Your task to perform on an android device: Open maps Image 0: 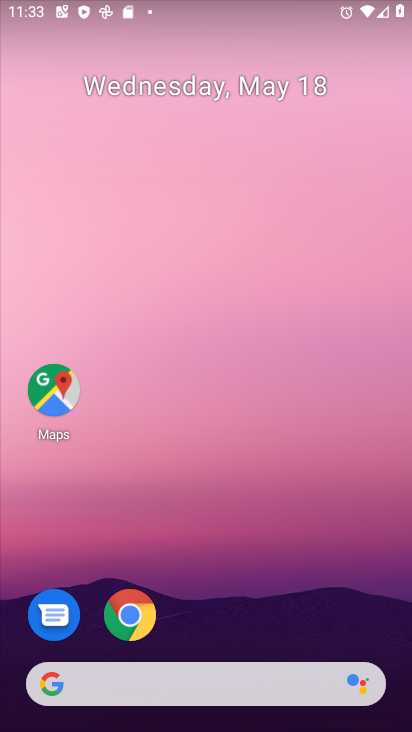
Step 0: click (56, 381)
Your task to perform on an android device: Open maps Image 1: 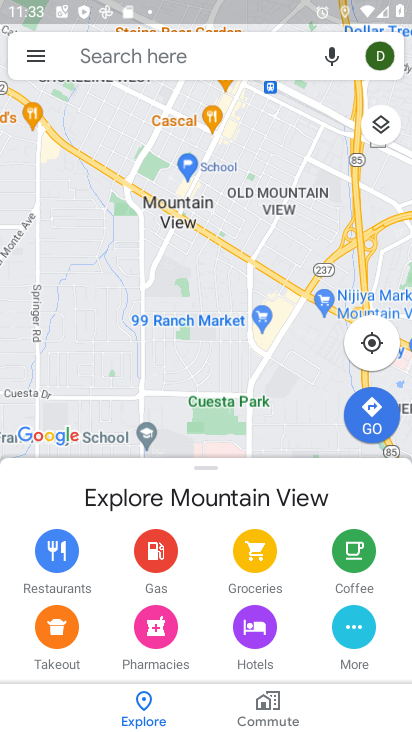
Step 1: task complete